Your task to perform on an android device: find which apps use the phone's location Image 0: 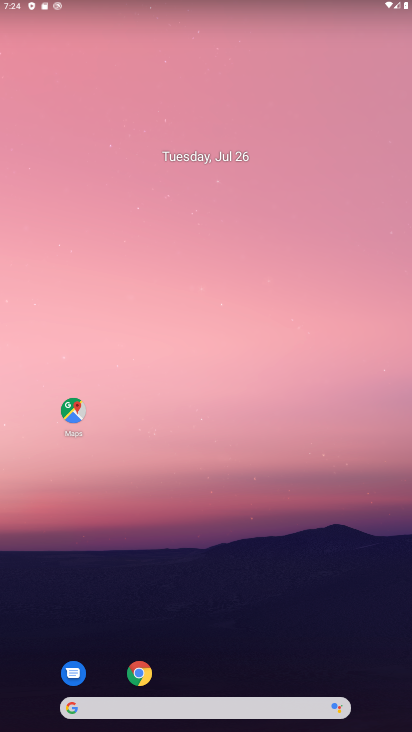
Step 0: drag from (307, 696) to (226, 52)
Your task to perform on an android device: find which apps use the phone's location Image 1: 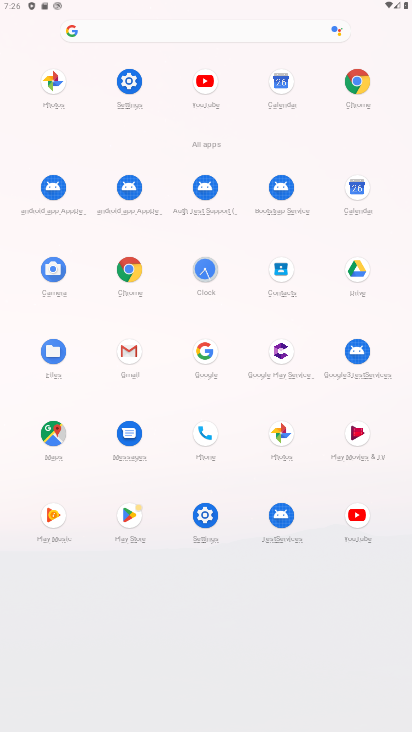
Step 1: click (206, 530)
Your task to perform on an android device: find which apps use the phone's location Image 2: 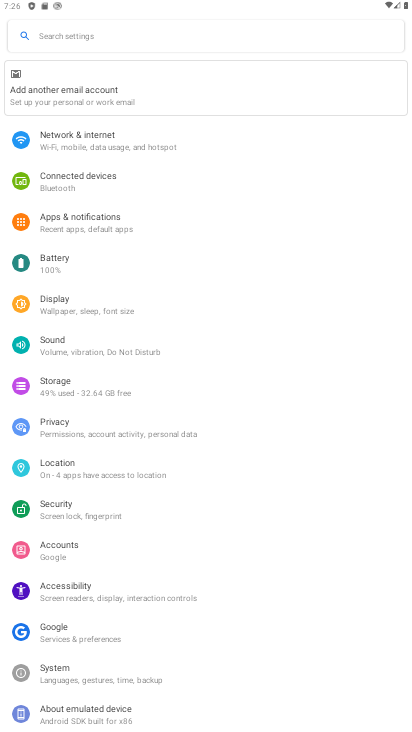
Step 2: click (57, 476)
Your task to perform on an android device: find which apps use the phone's location Image 3: 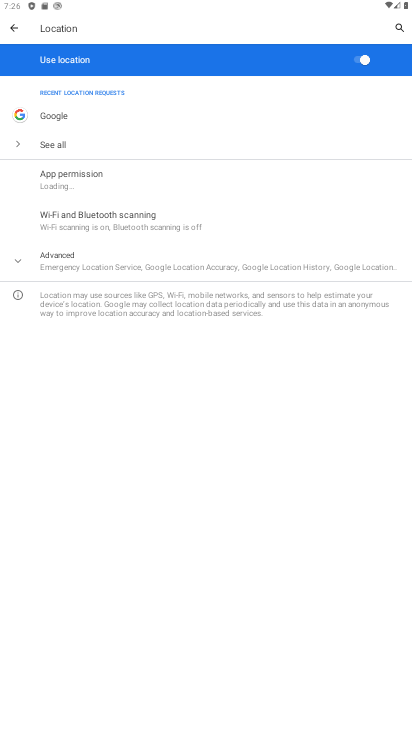
Step 3: click (75, 178)
Your task to perform on an android device: find which apps use the phone's location Image 4: 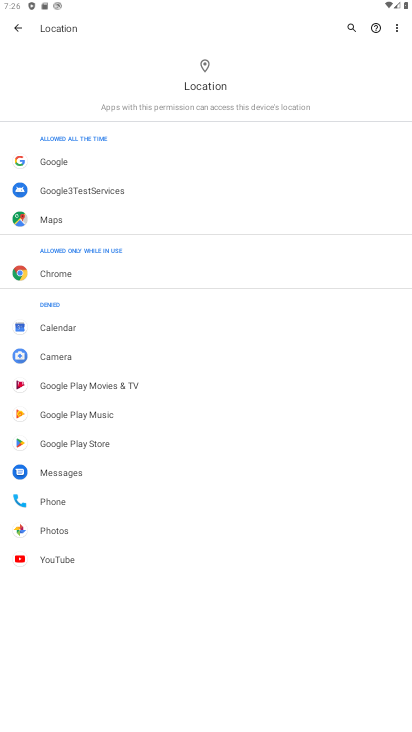
Step 4: click (46, 497)
Your task to perform on an android device: find which apps use the phone's location Image 5: 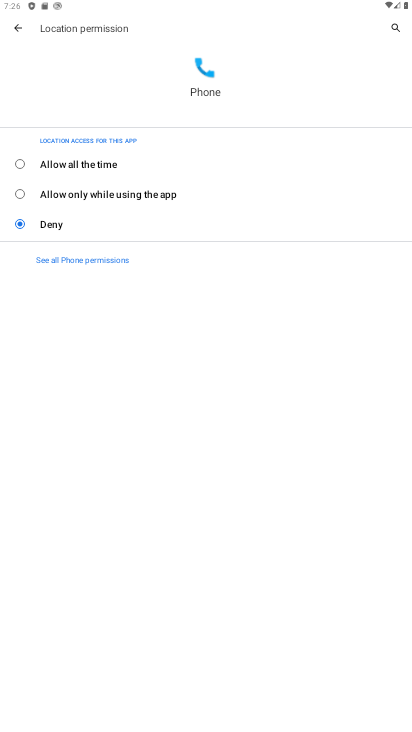
Step 5: click (94, 165)
Your task to perform on an android device: find which apps use the phone's location Image 6: 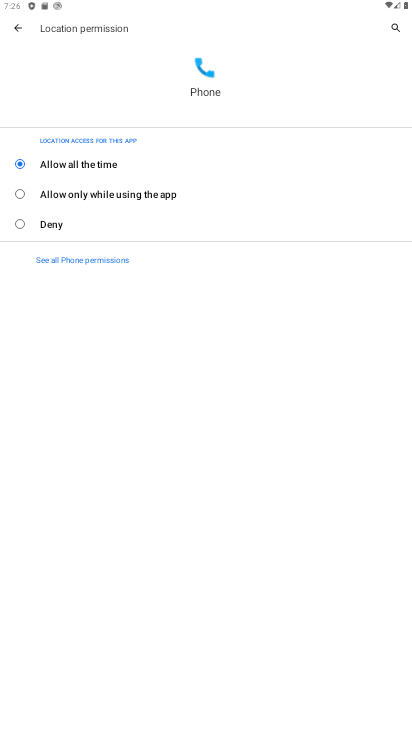
Step 6: task complete